Your task to perform on an android device: Set the phone to "Do not disturb". Image 0: 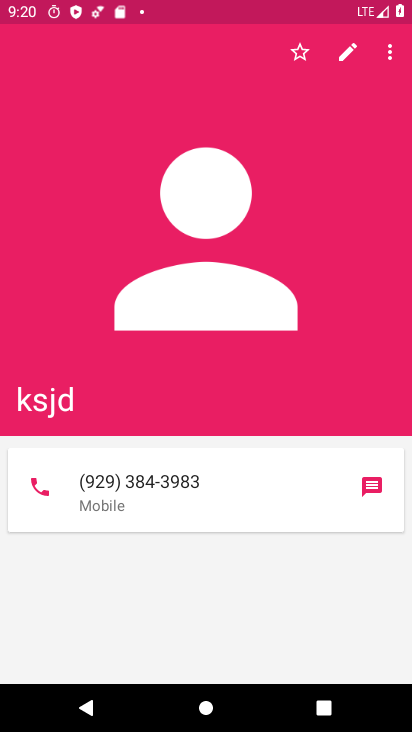
Step 0: press home button
Your task to perform on an android device: Set the phone to "Do not disturb". Image 1: 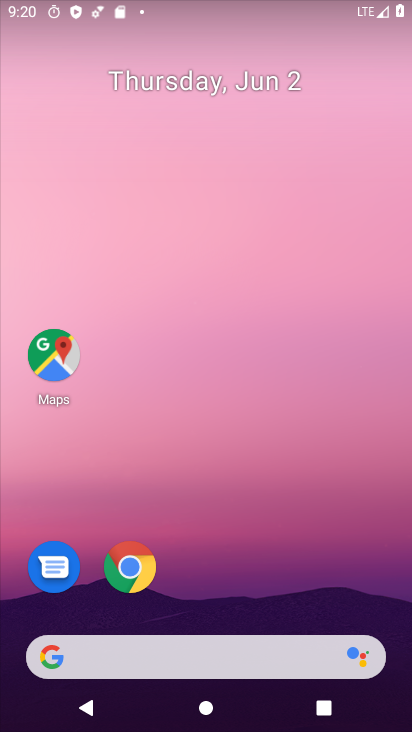
Step 1: drag from (358, 567) to (338, 83)
Your task to perform on an android device: Set the phone to "Do not disturb". Image 2: 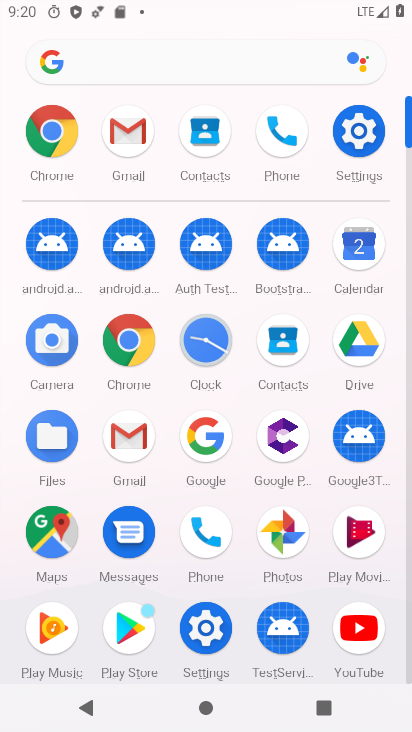
Step 2: click (225, 641)
Your task to perform on an android device: Set the phone to "Do not disturb". Image 3: 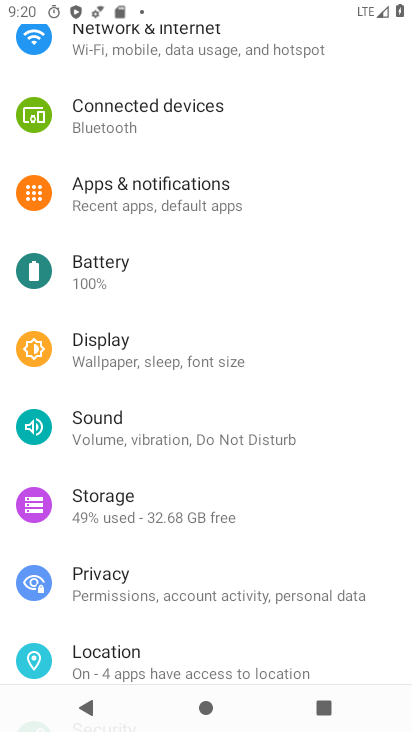
Step 3: click (255, 434)
Your task to perform on an android device: Set the phone to "Do not disturb". Image 4: 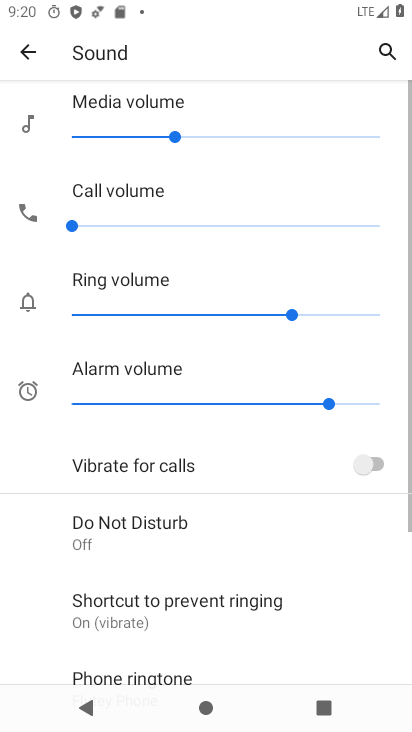
Step 4: drag from (251, 665) to (253, 326)
Your task to perform on an android device: Set the phone to "Do not disturb". Image 5: 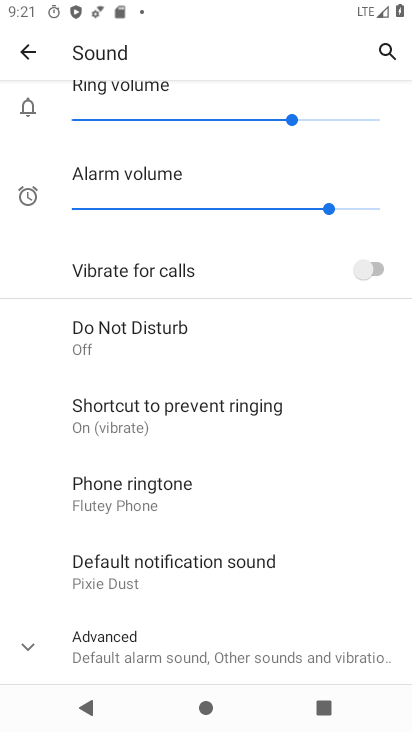
Step 5: click (236, 347)
Your task to perform on an android device: Set the phone to "Do not disturb". Image 6: 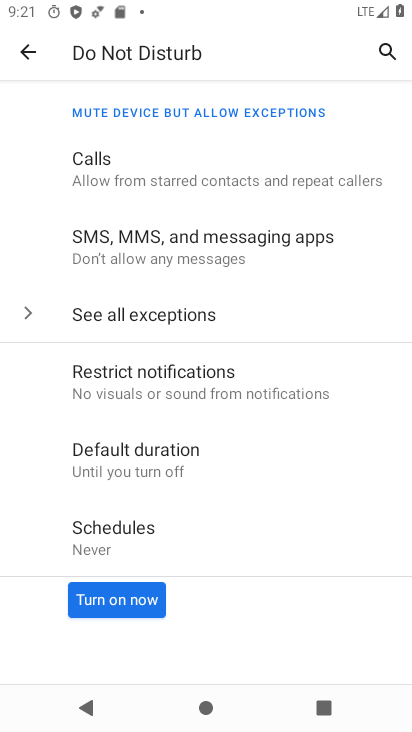
Step 6: click (136, 631)
Your task to perform on an android device: Set the phone to "Do not disturb". Image 7: 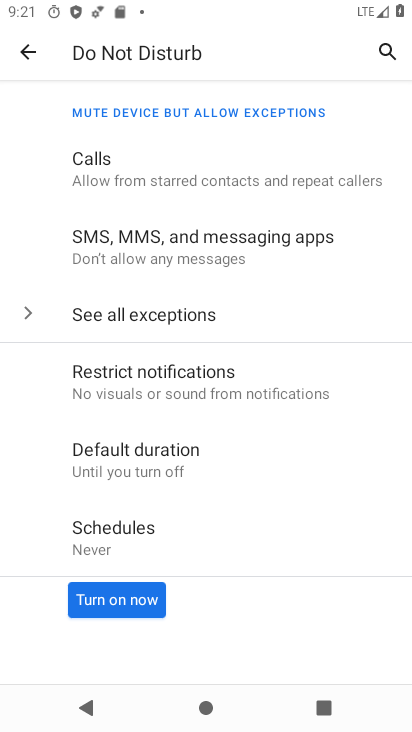
Step 7: click (131, 617)
Your task to perform on an android device: Set the phone to "Do not disturb". Image 8: 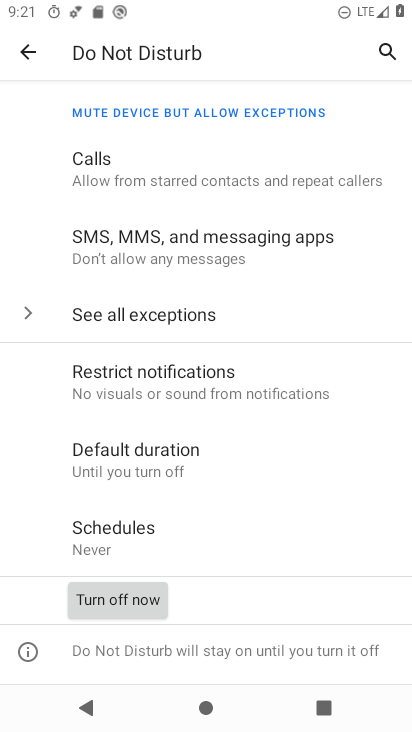
Step 8: task complete